Your task to perform on an android device: Go to Wikipedia Image 0: 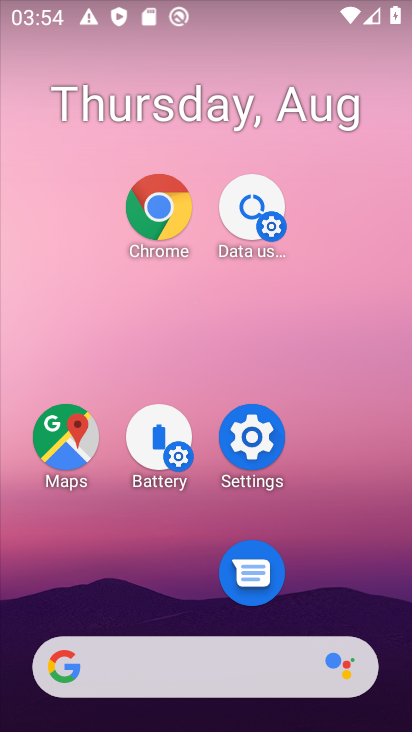
Step 0: drag from (267, 482) to (235, 248)
Your task to perform on an android device: Go to Wikipedia Image 1: 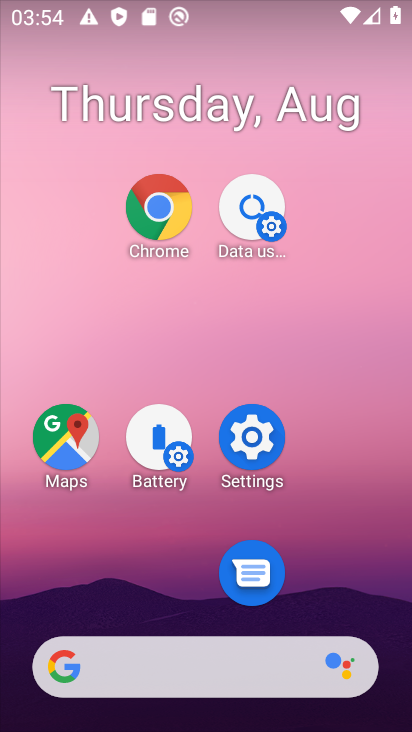
Step 1: drag from (245, 586) to (221, 242)
Your task to perform on an android device: Go to Wikipedia Image 2: 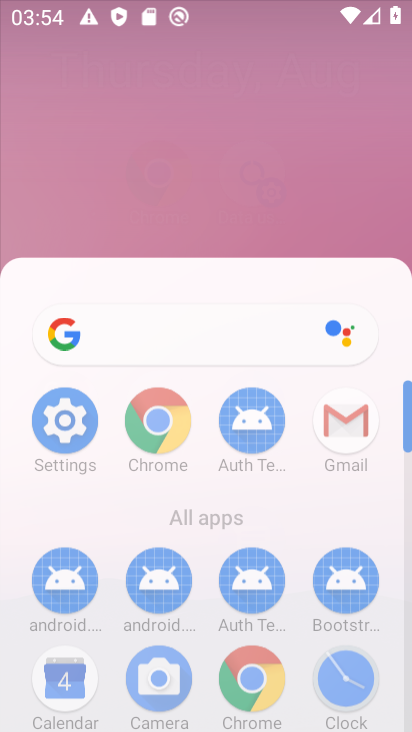
Step 2: drag from (266, 467) to (232, 239)
Your task to perform on an android device: Go to Wikipedia Image 3: 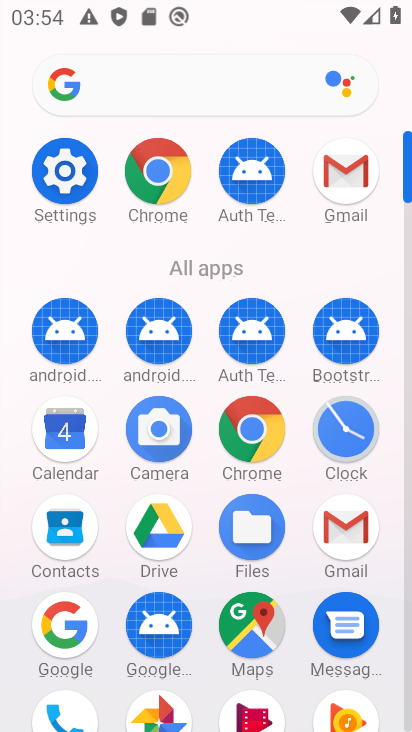
Step 3: drag from (216, 509) to (205, 273)
Your task to perform on an android device: Go to Wikipedia Image 4: 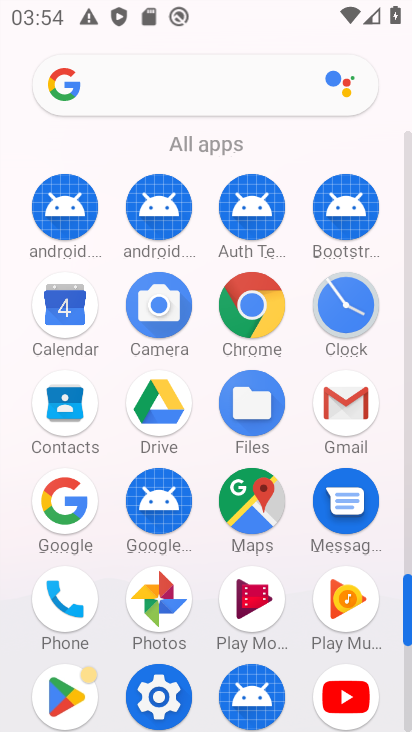
Step 4: click (166, 678)
Your task to perform on an android device: Go to Wikipedia Image 5: 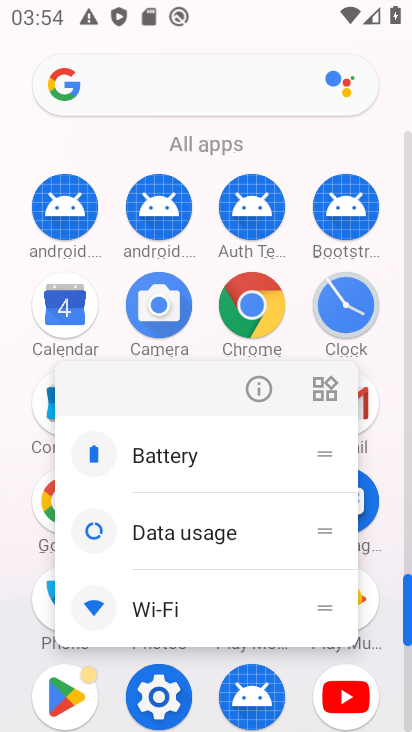
Step 5: click (245, 300)
Your task to perform on an android device: Go to Wikipedia Image 6: 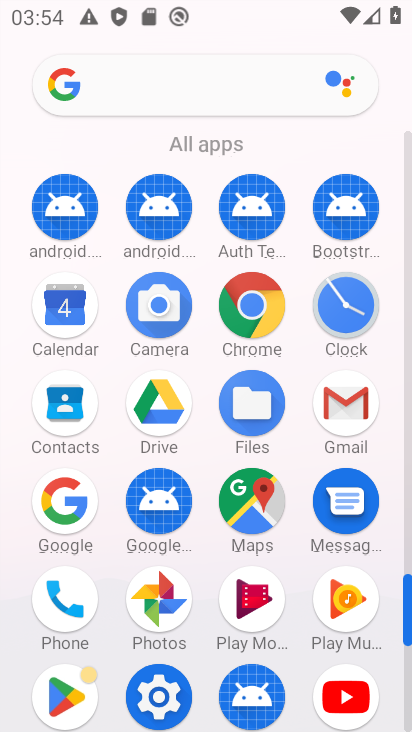
Step 6: click (245, 300)
Your task to perform on an android device: Go to Wikipedia Image 7: 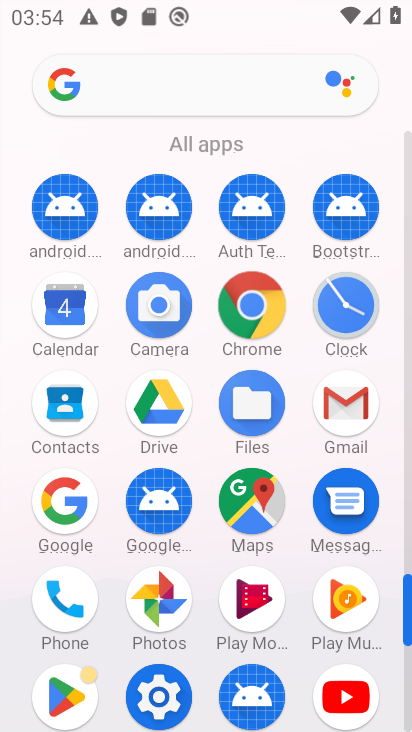
Step 7: click (245, 304)
Your task to perform on an android device: Go to Wikipedia Image 8: 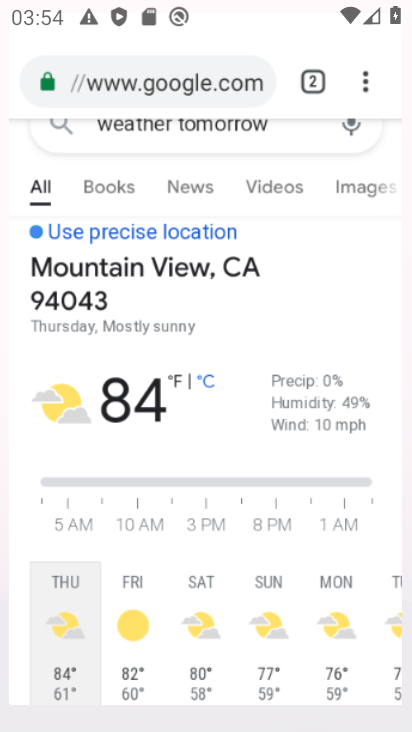
Step 8: click (245, 304)
Your task to perform on an android device: Go to Wikipedia Image 9: 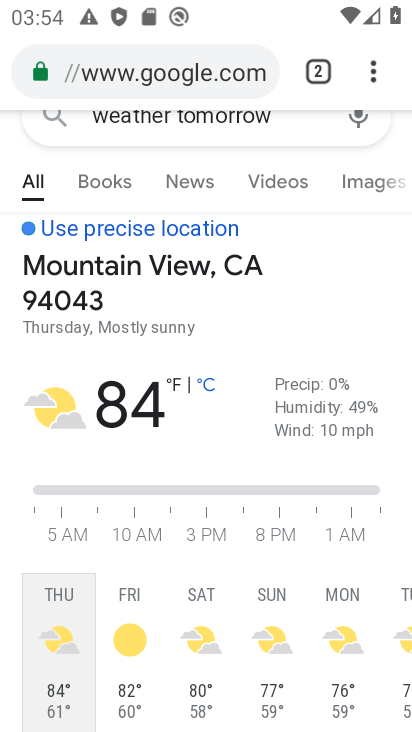
Step 9: drag from (363, 65) to (128, 161)
Your task to perform on an android device: Go to Wikipedia Image 10: 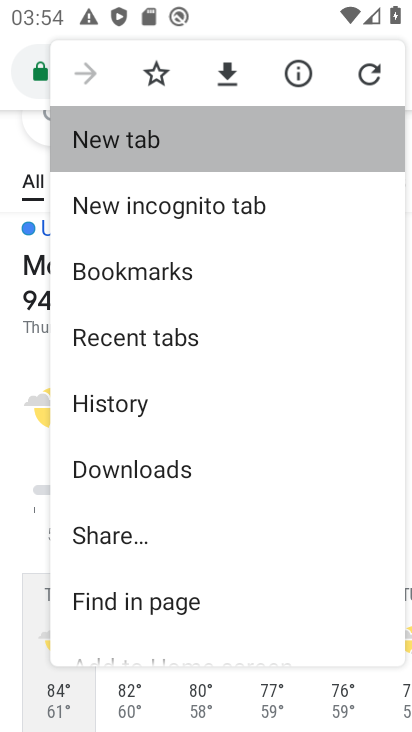
Step 10: click (128, 161)
Your task to perform on an android device: Go to Wikipedia Image 11: 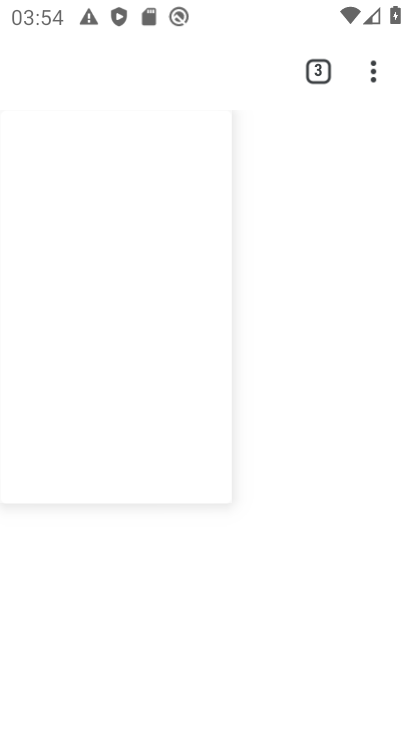
Step 11: click (128, 161)
Your task to perform on an android device: Go to Wikipedia Image 12: 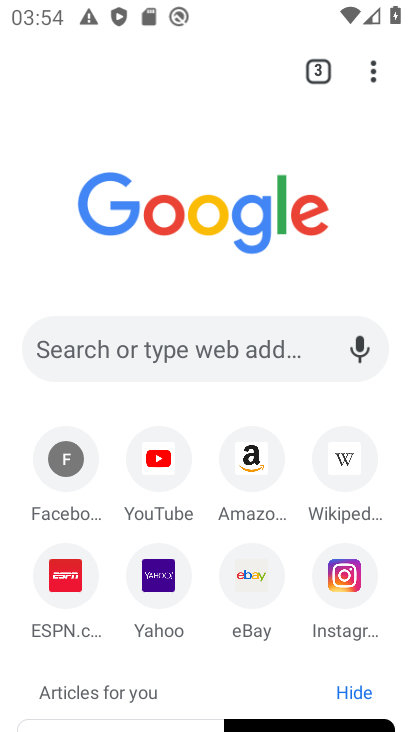
Step 12: click (332, 469)
Your task to perform on an android device: Go to Wikipedia Image 13: 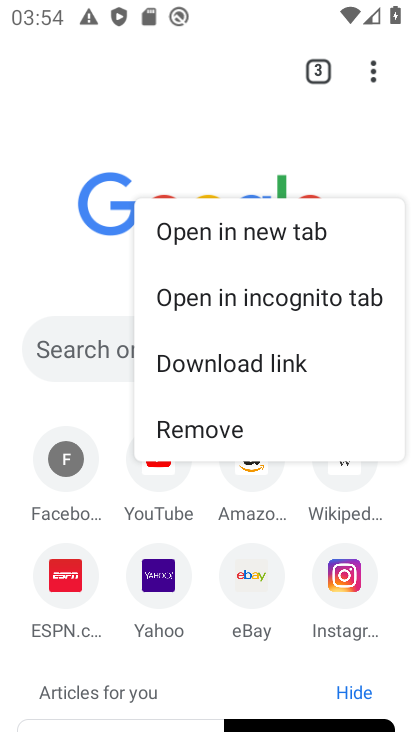
Step 13: click (334, 469)
Your task to perform on an android device: Go to Wikipedia Image 14: 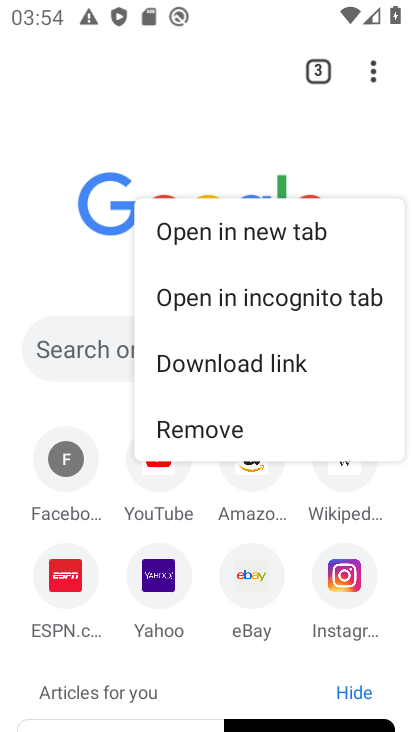
Step 14: click (244, 234)
Your task to perform on an android device: Go to Wikipedia Image 15: 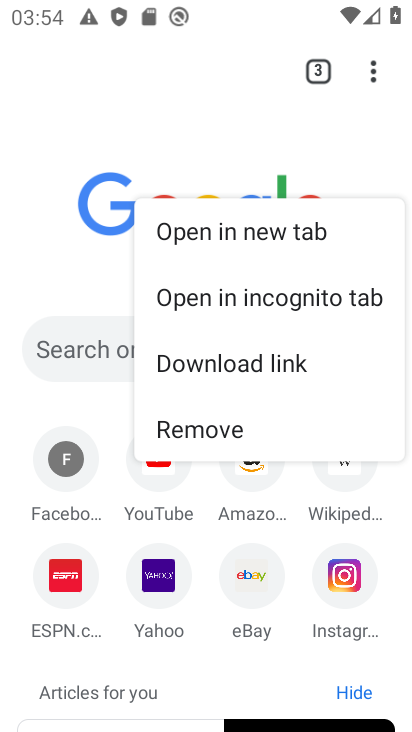
Step 15: click (244, 234)
Your task to perform on an android device: Go to Wikipedia Image 16: 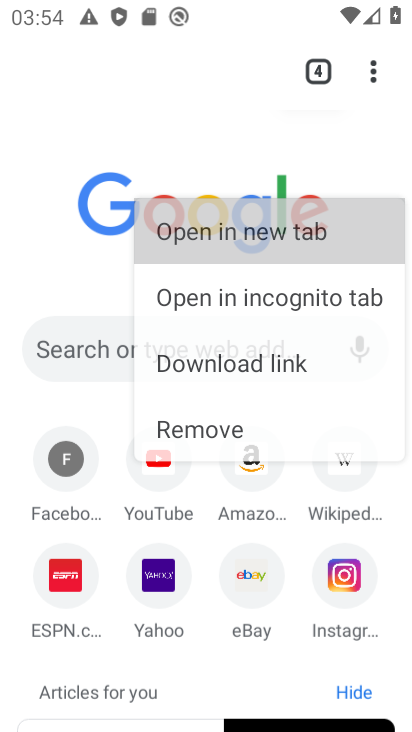
Step 16: click (244, 234)
Your task to perform on an android device: Go to Wikipedia Image 17: 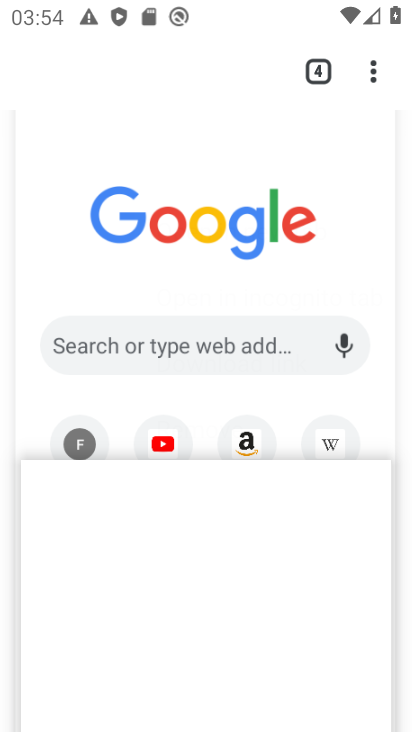
Step 17: click (243, 233)
Your task to perform on an android device: Go to Wikipedia Image 18: 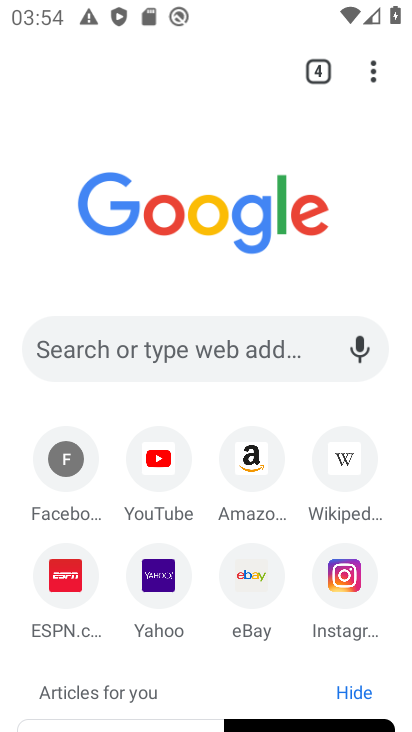
Step 18: task complete